Your task to perform on an android device: change the clock display to digital Image 0: 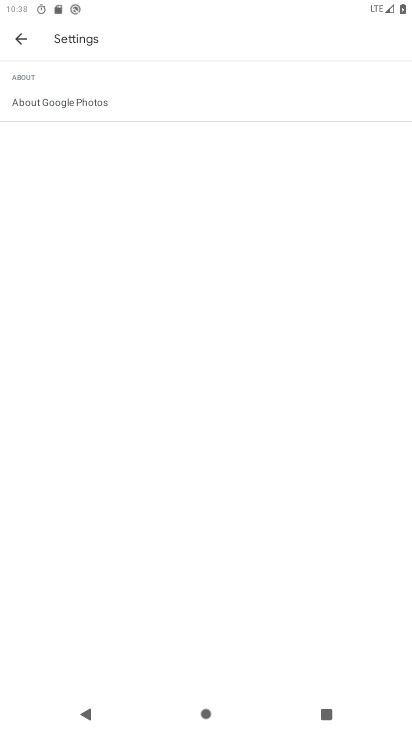
Step 0: press home button
Your task to perform on an android device: change the clock display to digital Image 1: 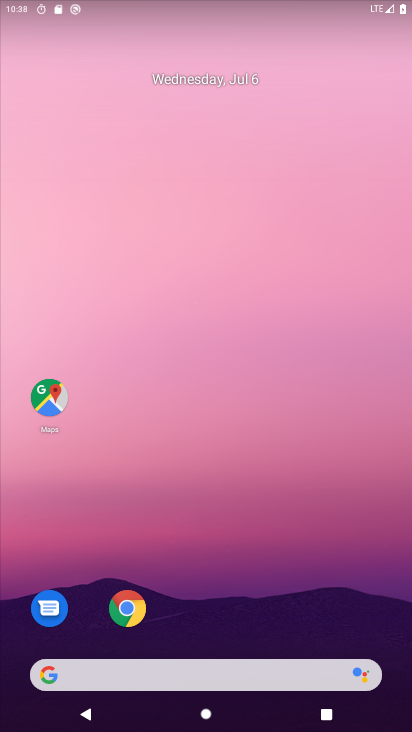
Step 1: drag from (228, 605) to (252, 24)
Your task to perform on an android device: change the clock display to digital Image 2: 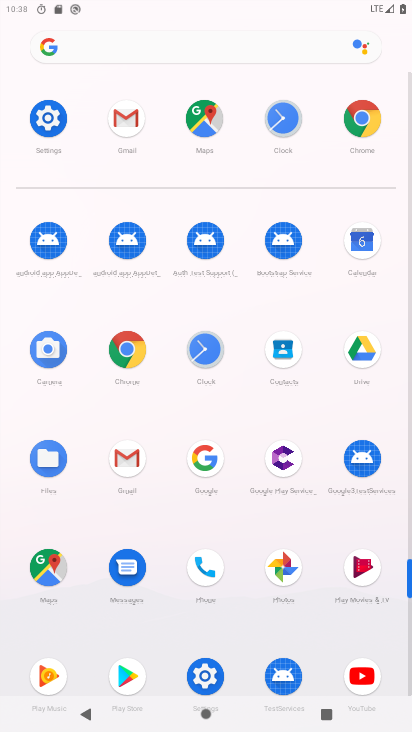
Step 2: click (208, 341)
Your task to perform on an android device: change the clock display to digital Image 3: 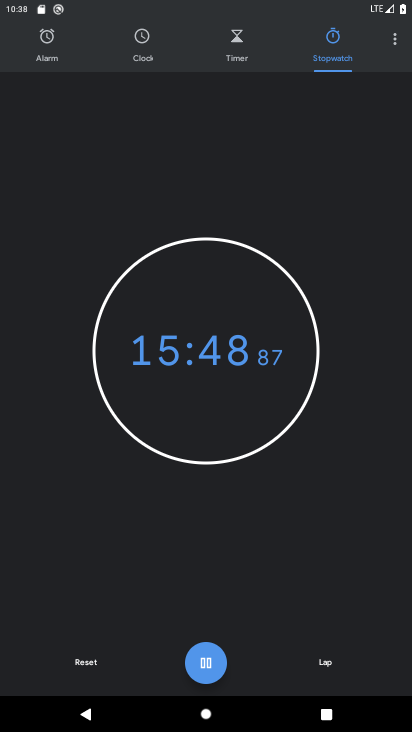
Step 3: click (89, 657)
Your task to perform on an android device: change the clock display to digital Image 4: 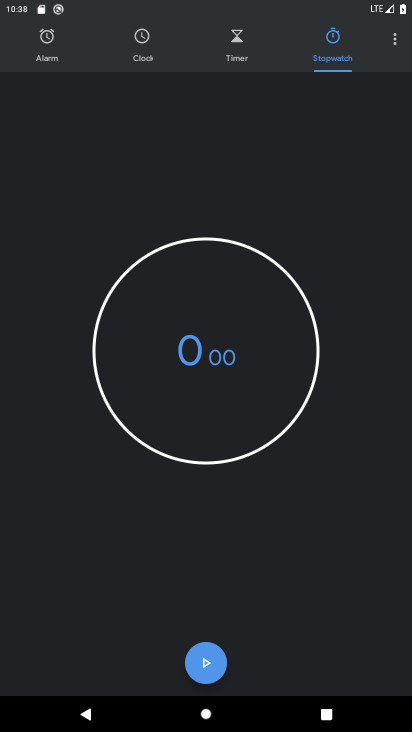
Step 4: click (397, 40)
Your task to perform on an android device: change the clock display to digital Image 5: 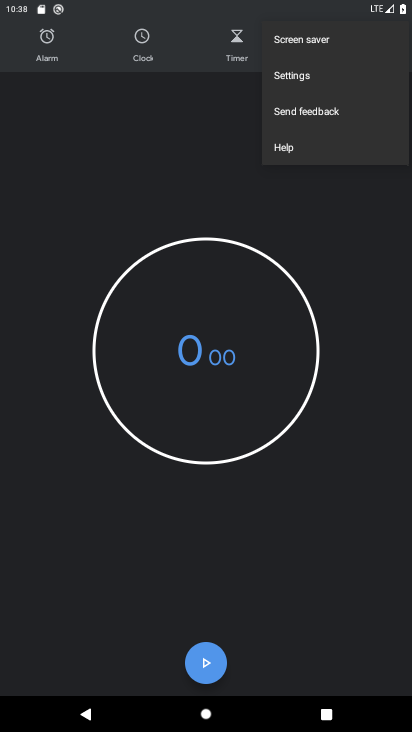
Step 5: click (309, 85)
Your task to perform on an android device: change the clock display to digital Image 6: 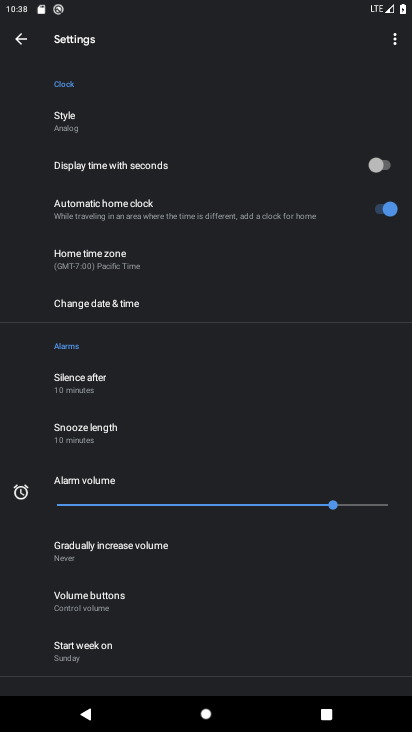
Step 6: click (87, 116)
Your task to perform on an android device: change the clock display to digital Image 7: 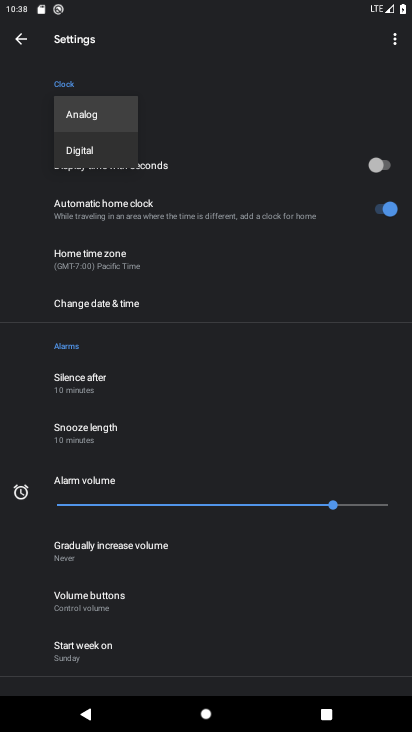
Step 7: click (117, 156)
Your task to perform on an android device: change the clock display to digital Image 8: 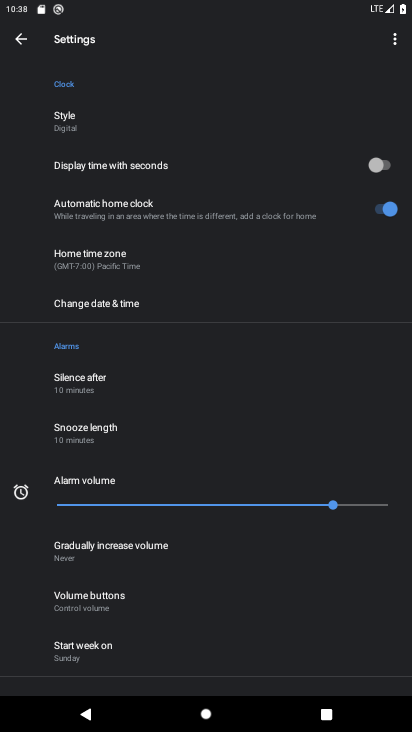
Step 8: task complete